Your task to perform on an android device: check battery use Image 0: 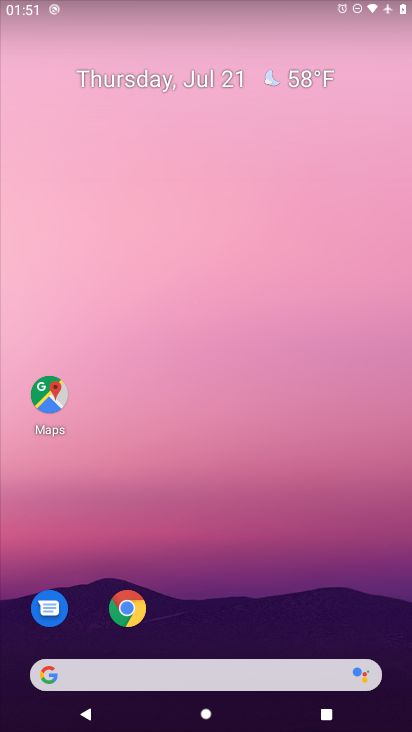
Step 0: press home button
Your task to perform on an android device: check battery use Image 1: 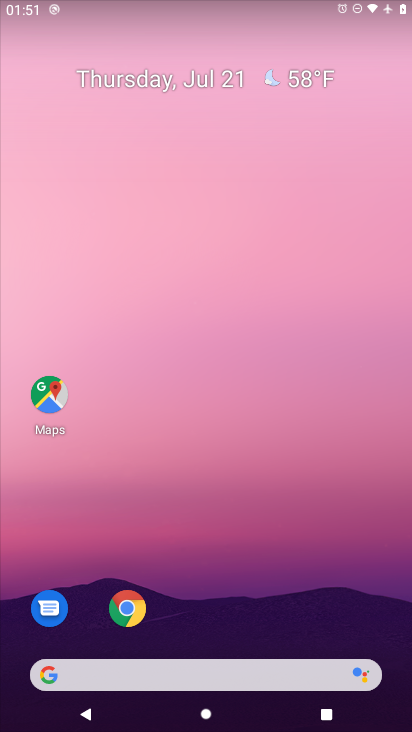
Step 1: drag from (187, 653) to (62, 8)
Your task to perform on an android device: check battery use Image 2: 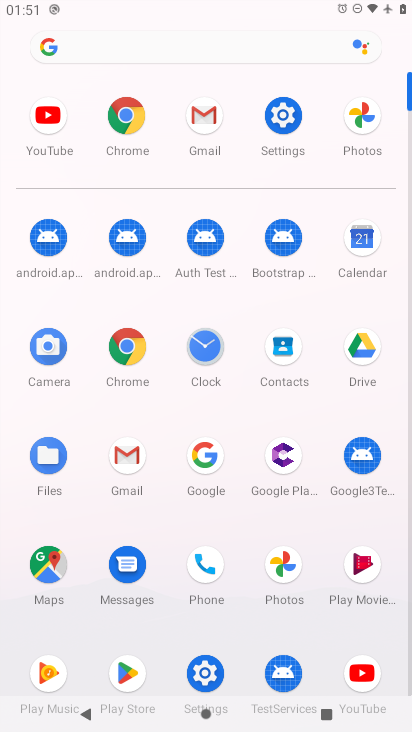
Step 2: click (275, 118)
Your task to perform on an android device: check battery use Image 3: 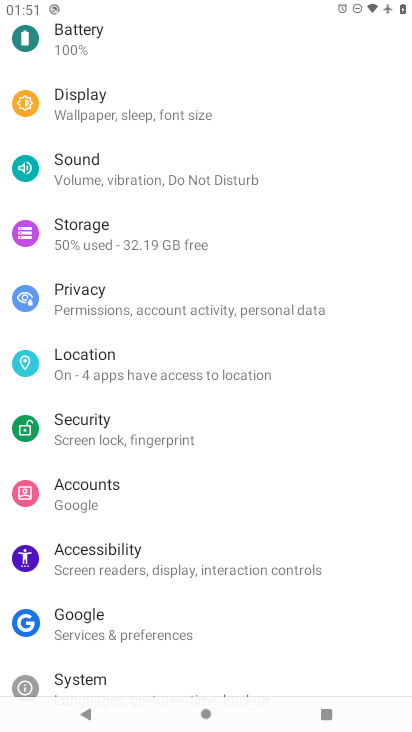
Step 3: click (70, 38)
Your task to perform on an android device: check battery use Image 4: 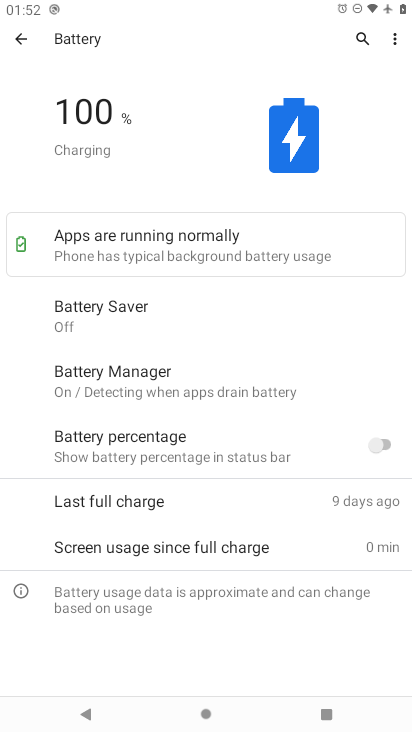
Step 4: task complete